Your task to perform on an android device: Turn off the flashlight Image 0: 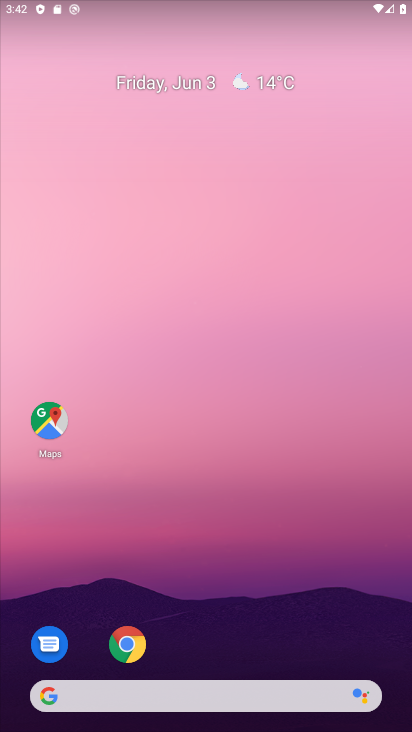
Step 0: drag from (228, 478) to (288, 246)
Your task to perform on an android device: Turn off the flashlight Image 1: 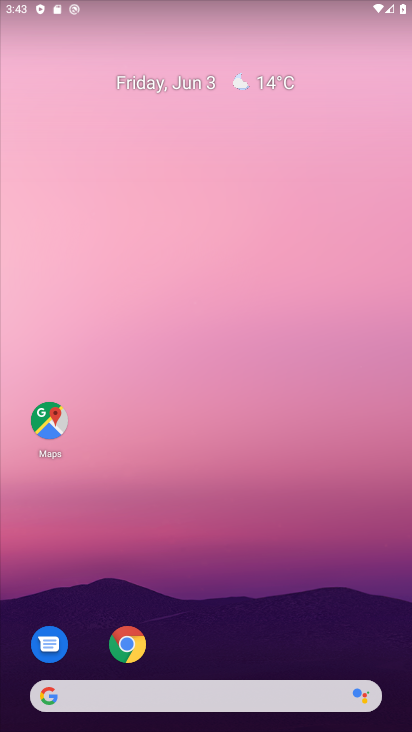
Step 1: drag from (201, 671) to (135, 38)
Your task to perform on an android device: Turn off the flashlight Image 2: 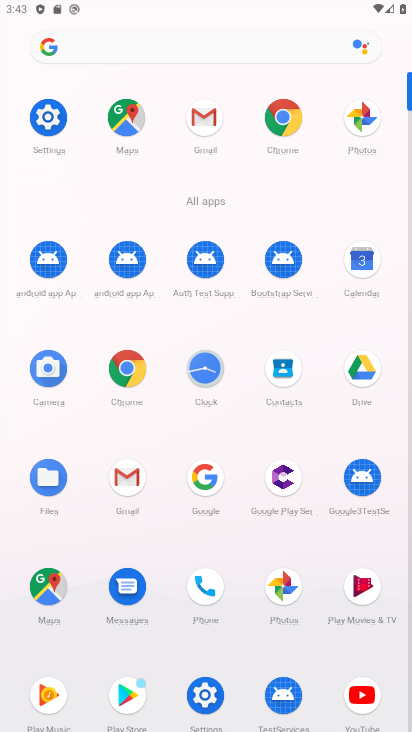
Step 2: click (54, 110)
Your task to perform on an android device: Turn off the flashlight Image 3: 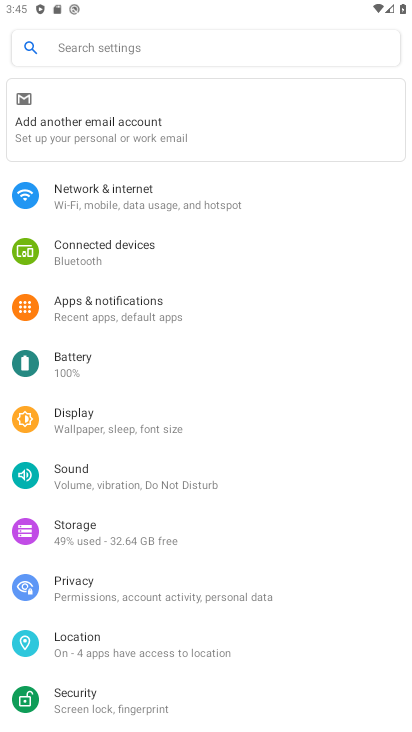
Step 3: task complete